Your task to perform on an android device: Open Reddit.com Image 0: 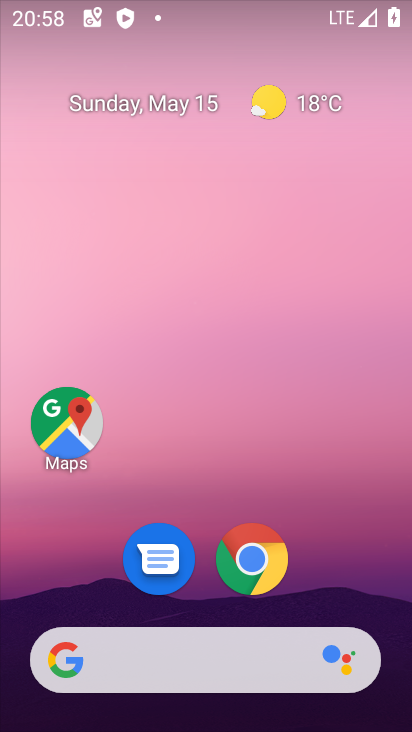
Step 0: drag from (220, 436) to (144, 30)
Your task to perform on an android device: Open Reddit.com Image 1: 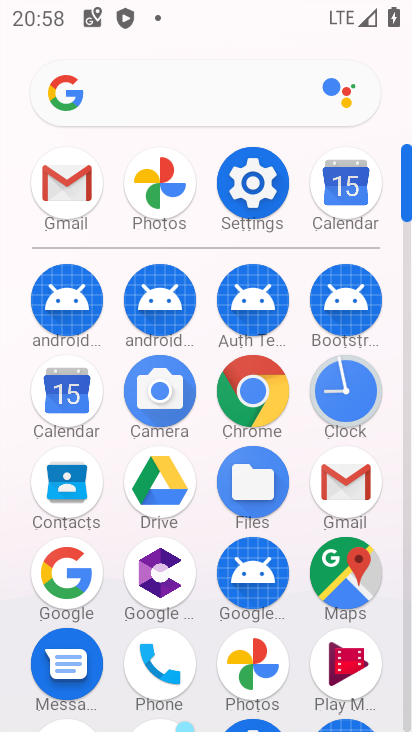
Step 1: click (248, 386)
Your task to perform on an android device: Open Reddit.com Image 2: 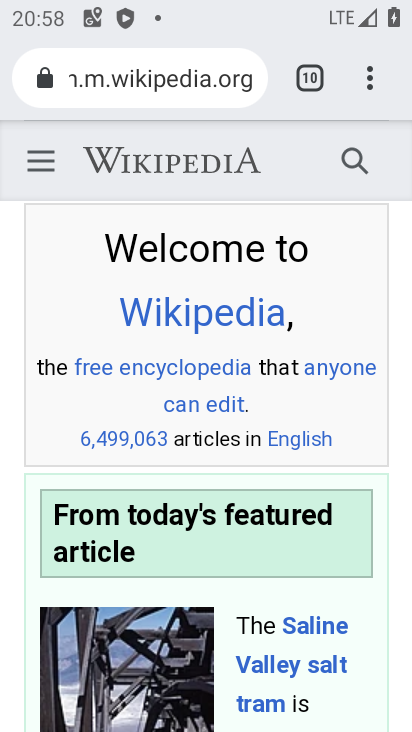
Step 2: click (371, 78)
Your task to perform on an android device: Open Reddit.com Image 3: 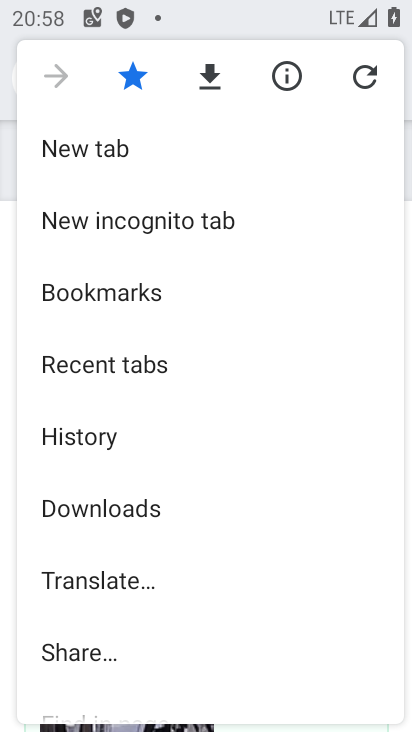
Step 3: click (78, 146)
Your task to perform on an android device: Open Reddit.com Image 4: 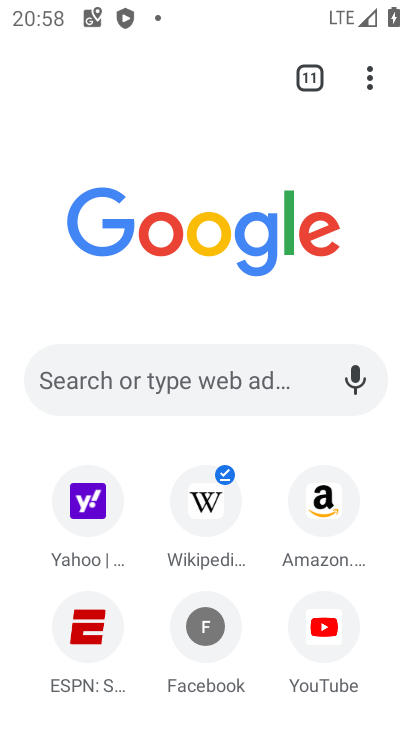
Step 4: click (212, 371)
Your task to perform on an android device: Open Reddit.com Image 5: 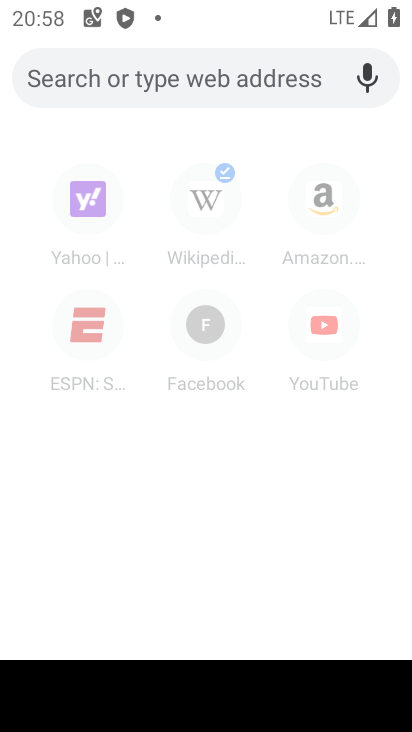
Step 5: type "reddit.com"
Your task to perform on an android device: Open Reddit.com Image 6: 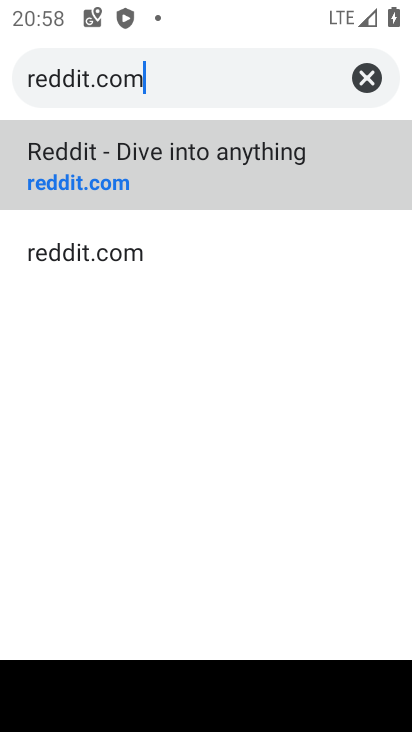
Step 6: click (124, 164)
Your task to perform on an android device: Open Reddit.com Image 7: 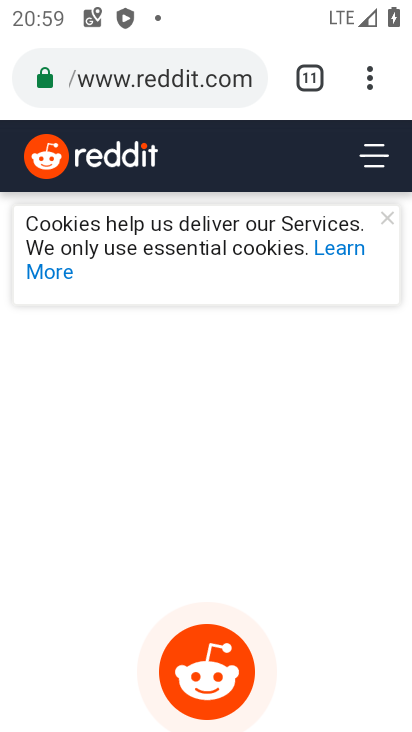
Step 7: task complete